Your task to perform on an android device: turn off priority inbox in the gmail app Image 0: 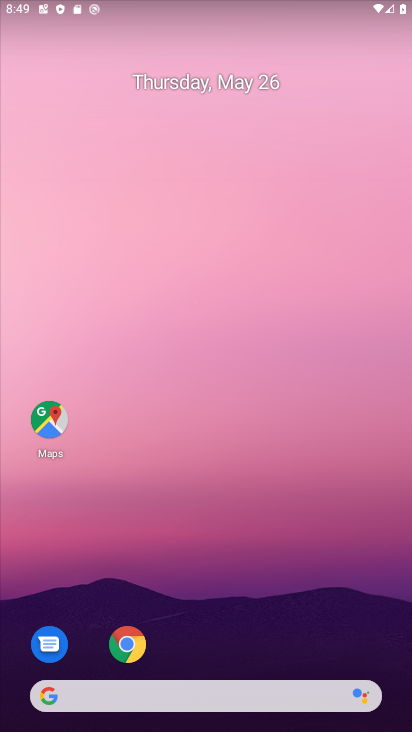
Step 0: press back button
Your task to perform on an android device: turn off priority inbox in the gmail app Image 1: 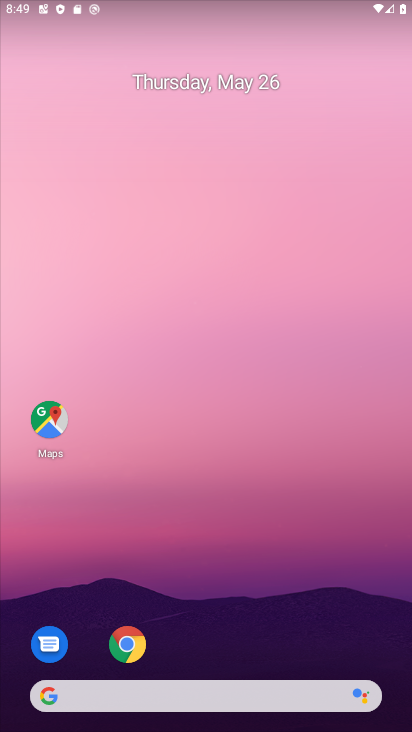
Step 1: click (302, 147)
Your task to perform on an android device: turn off priority inbox in the gmail app Image 2: 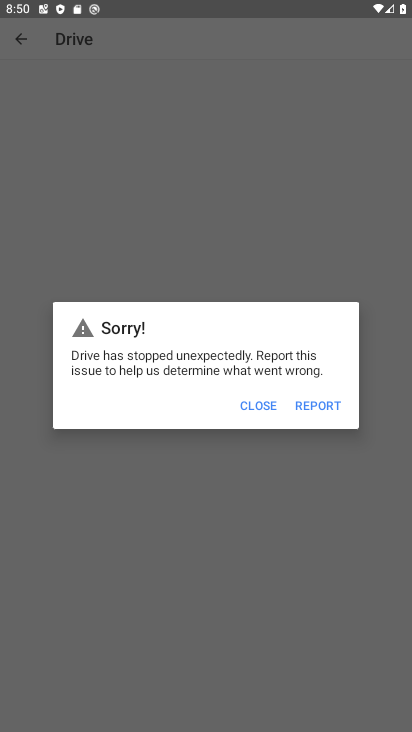
Step 2: press home button
Your task to perform on an android device: turn off priority inbox in the gmail app Image 3: 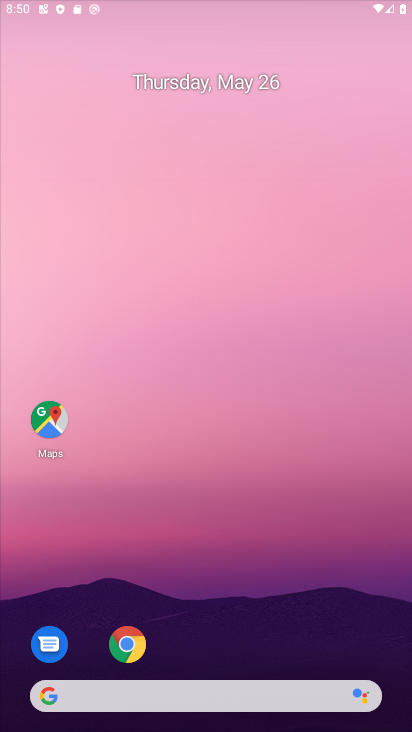
Step 3: drag from (222, 613) to (294, 99)
Your task to perform on an android device: turn off priority inbox in the gmail app Image 4: 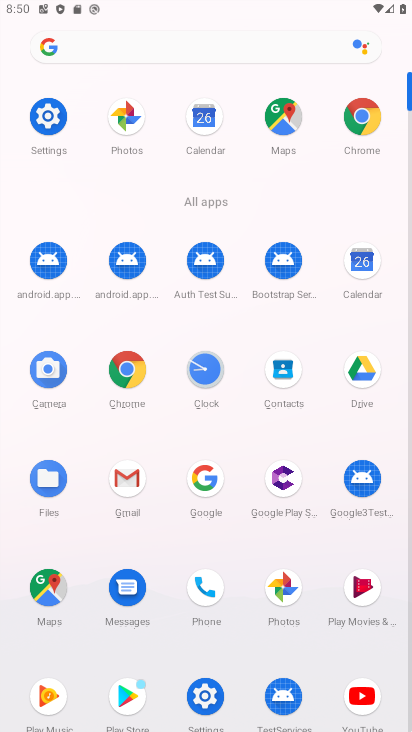
Step 4: click (129, 494)
Your task to perform on an android device: turn off priority inbox in the gmail app Image 5: 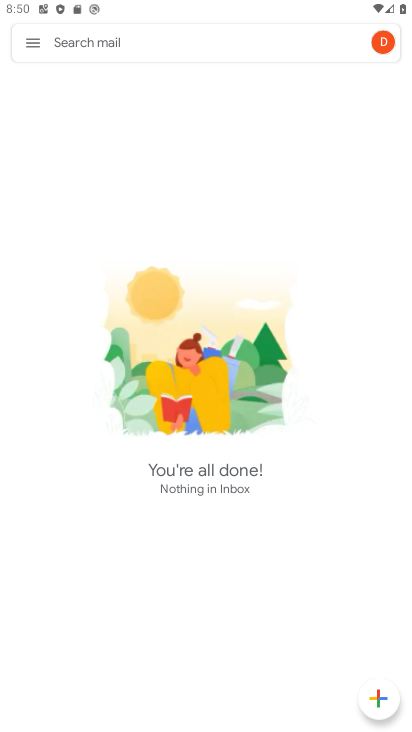
Step 5: click (36, 35)
Your task to perform on an android device: turn off priority inbox in the gmail app Image 6: 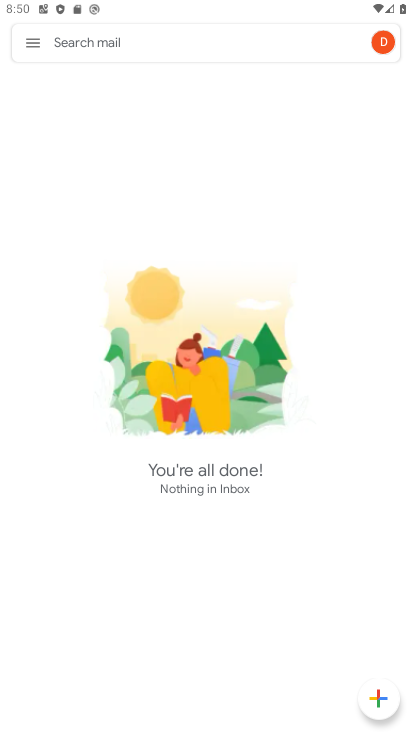
Step 6: click (33, 40)
Your task to perform on an android device: turn off priority inbox in the gmail app Image 7: 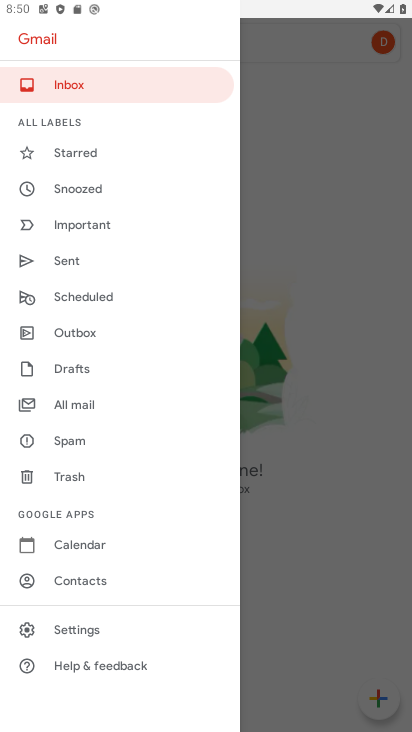
Step 7: click (68, 627)
Your task to perform on an android device: turn off priority inbox in the gmail app Image 8: 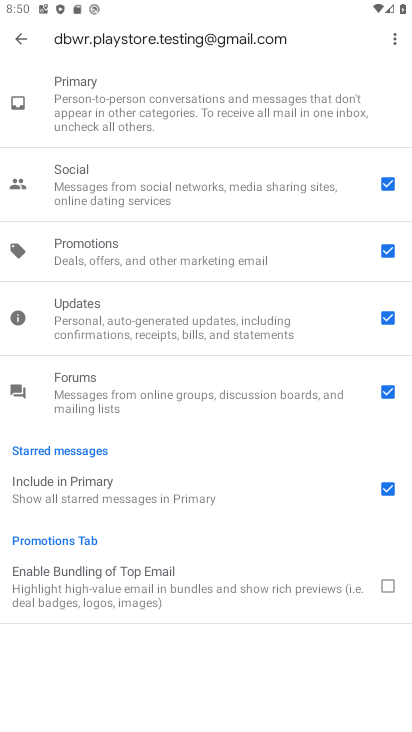
Step 8: drag from (245, 185) to (159, 716)
Your task to perform on an android device: turn off priority inbox in the gmail app Image 9: 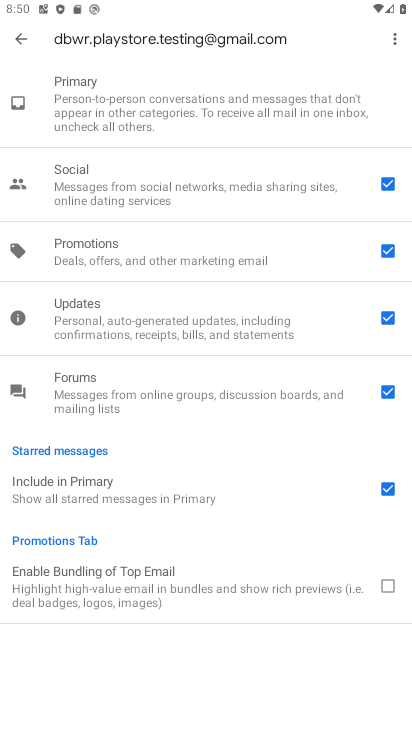
Step 9: click (22, 35)
Your task to perform on an android device: turn off priority inbox in the gmail app Image 10: 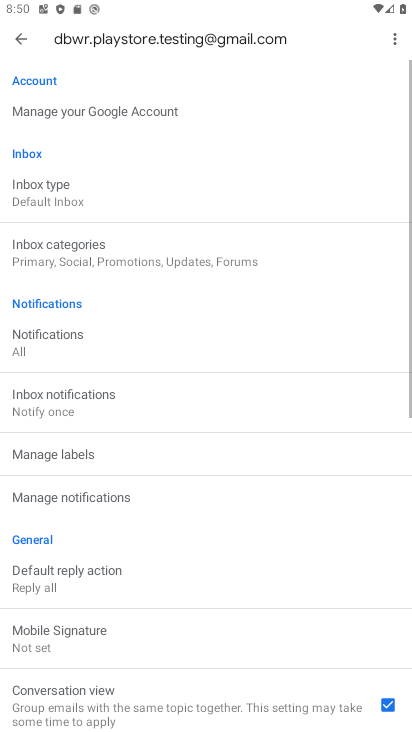
Step 10: click (81, 201)
Your task to perform on an android device: turn off priority inbox in the gmail app Image 11: 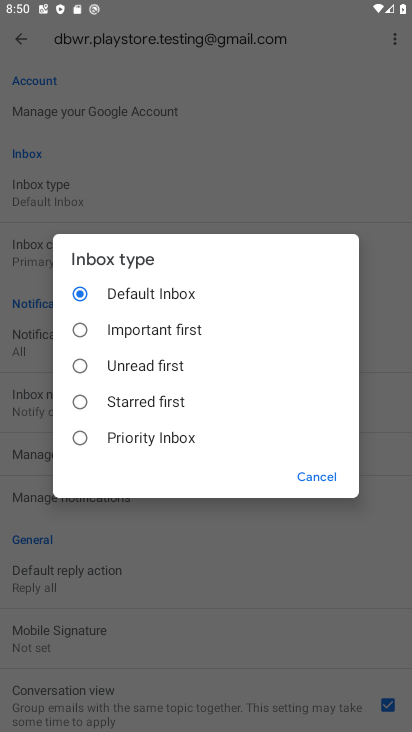
Step 11: task complete